Your task to perform on an android device: toggle priority inbox in the gmail app Image 0: 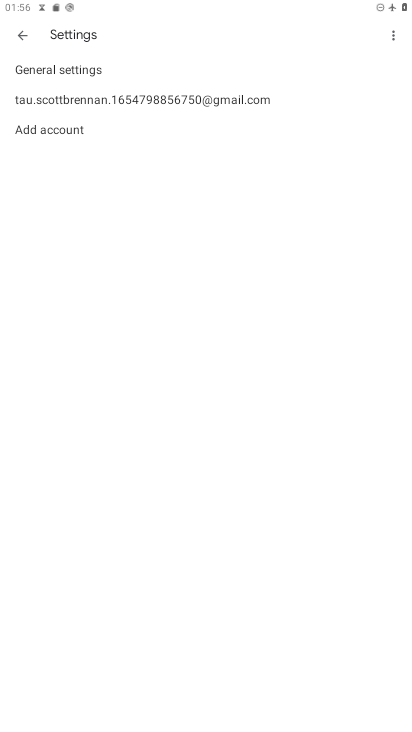
Step 0: press home button
Your task to perform on an android device: toggle priority inbox in the gmail app Image 1: 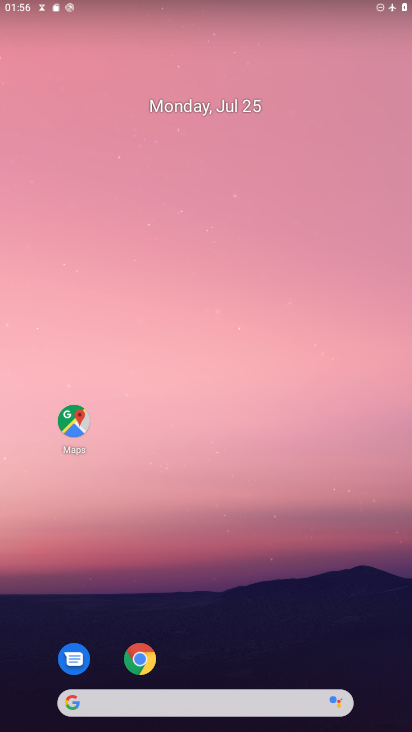
Step 1: drag from (264, 596) to (278, 134)
Your task to perform on an android device: toggle priority inbox in the gmail app Image 2: 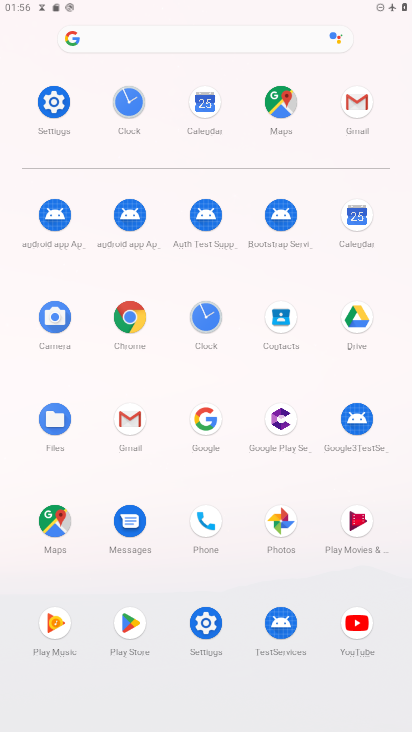
Step 2: click (356, 94)
Your task to perform on an android device: toggle priority inbox in the gmail app Image 3: 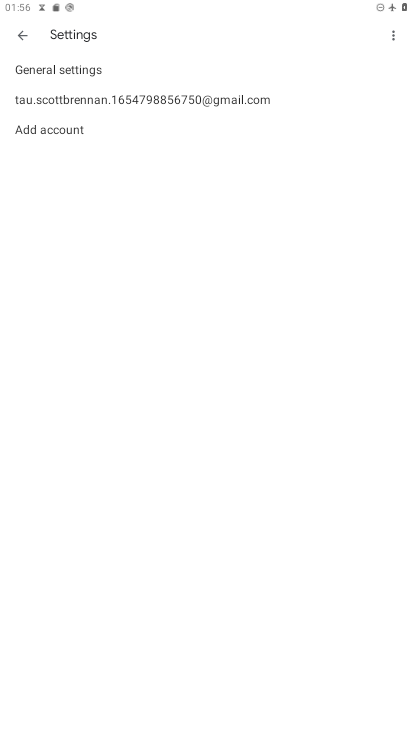
Step 3: click (23, 24)
Your task to perform on an android device: toggle priority inbox in the gmail app Image 4: 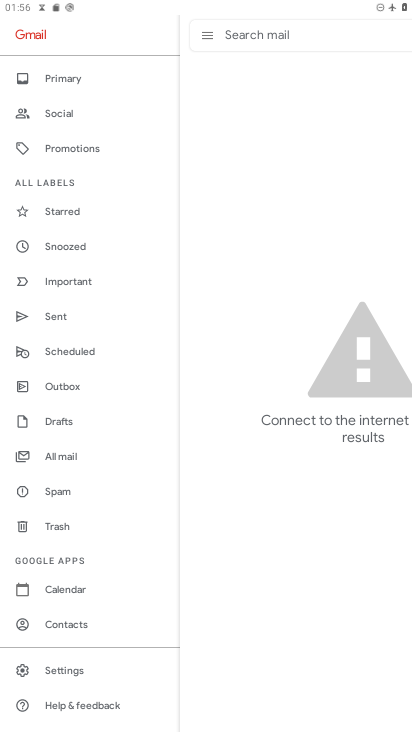
Step 4: click (84, 670)
Your task to perform on an android device: toggle priority inbox in the gmail app Image 5: 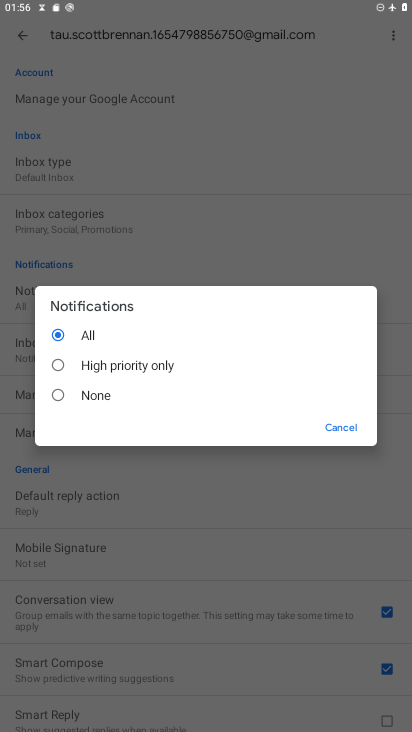
Step 5: click (334, 421)
Your task to perform on an android device: toggle priority inbox in the gmail app Image 6: 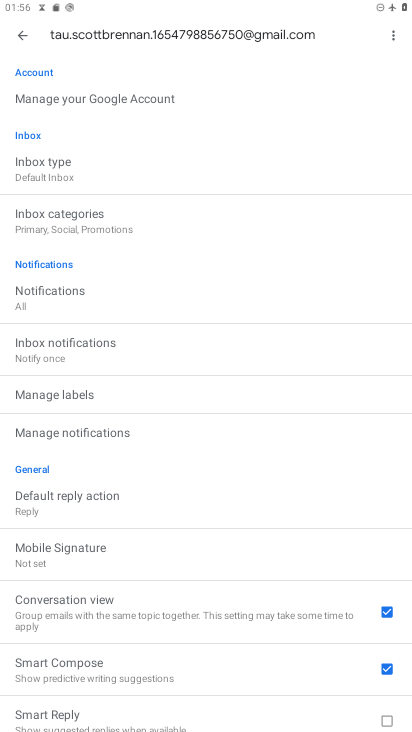
Step 6: click (74, 179)
Your task to perform on an android device: toggle priority inbox in the gmail app Image 7: 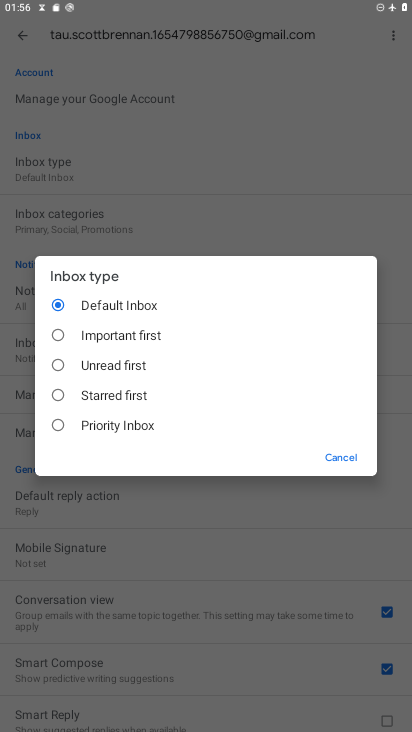
Step 7: click (109, 424)
Your task to perform on an android device: toggle priority inbox in the gmail app Image 8: 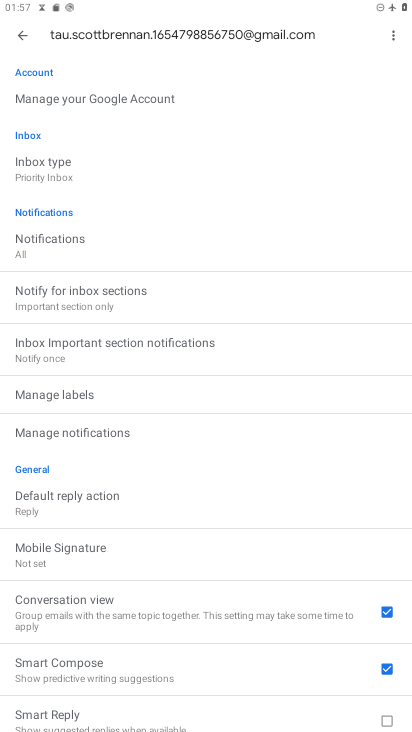
Step 8: task complete